Your task to perform on an android device: turn off data saver in the chrome app Image 0: 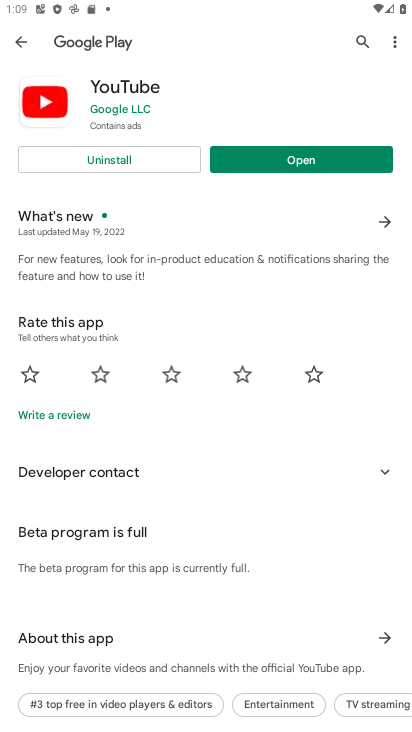
Step 0: press home button
Your task to perform on an android device: turn off data saver in the chrome app Image 1: 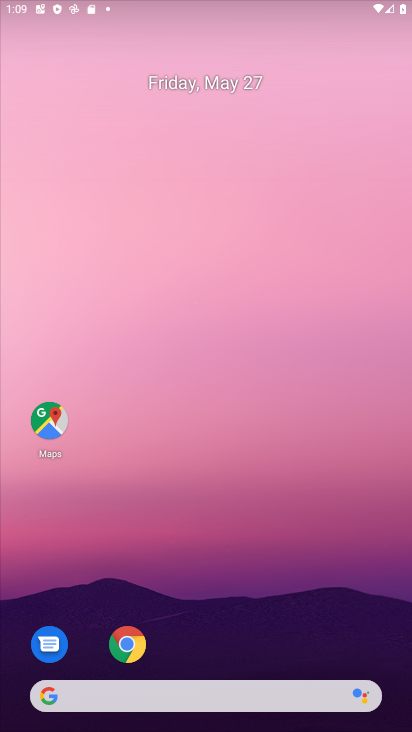
Step 1: drag from (324, 545) to (319, 375)
Your task to perform on an android device: turn off data saver in the chrome app Image 2: 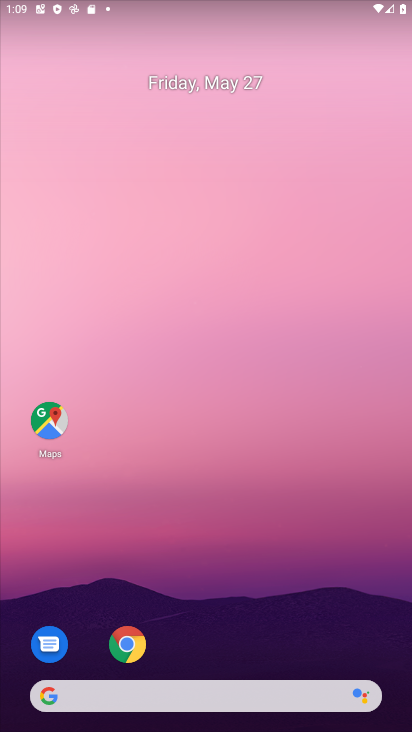
Step 2: drag from (357, 494) to (275, 21)
Your task to perform on an android device: turn off data saver in the chrome app Image 3: 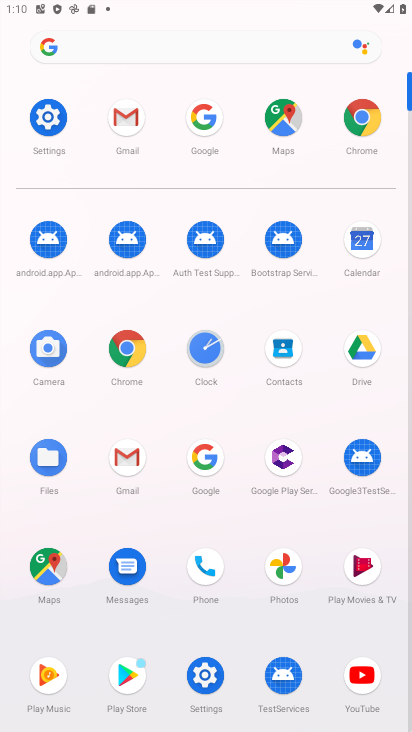
Step 3: click (375, 109)
Your task to perform on an android device: turn off data saver in the chrome app Image 4: 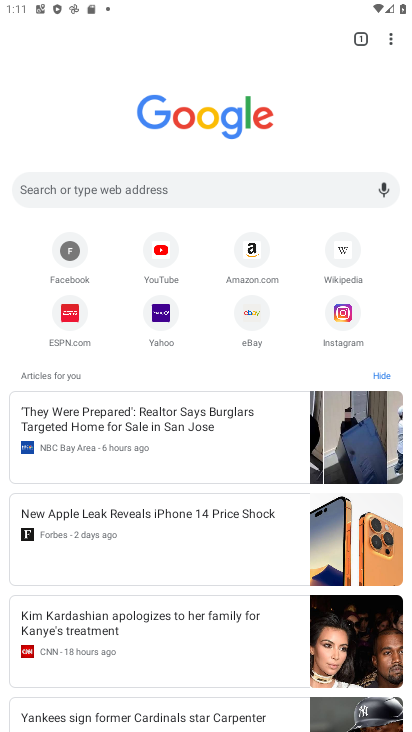
Step 4: click (389, 34)
Your task to perform on an android device: turn off data saver in the chrome app Image 5: 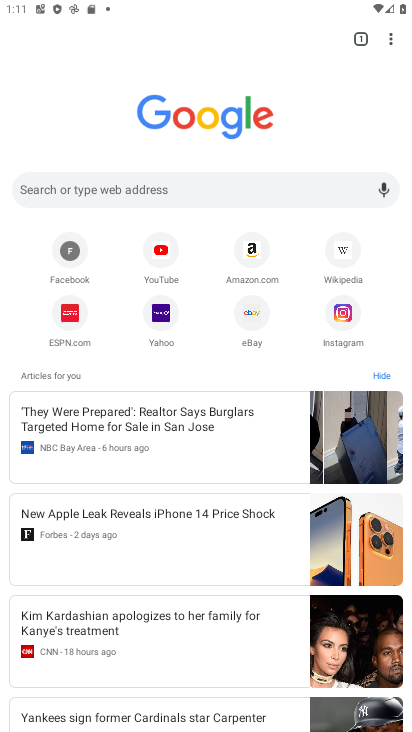
Step 5: click (394, 30)
Your task to perform on an android device: turn off data saver in the chrome app Image 6: 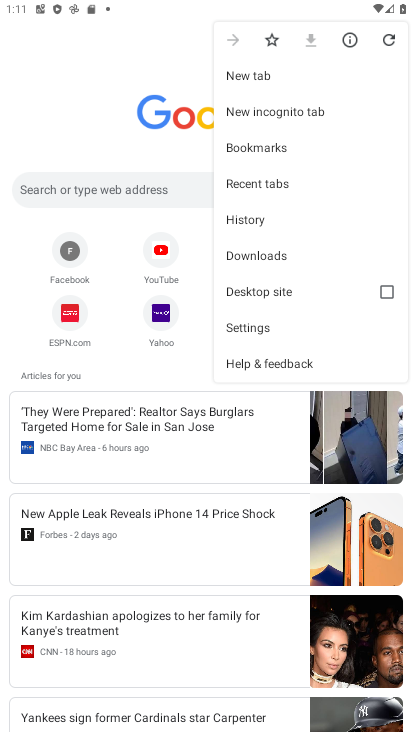
Step 6: click (256, 324)
Your task to perform on an android device: turn off data saver in the chrome app Image 7: 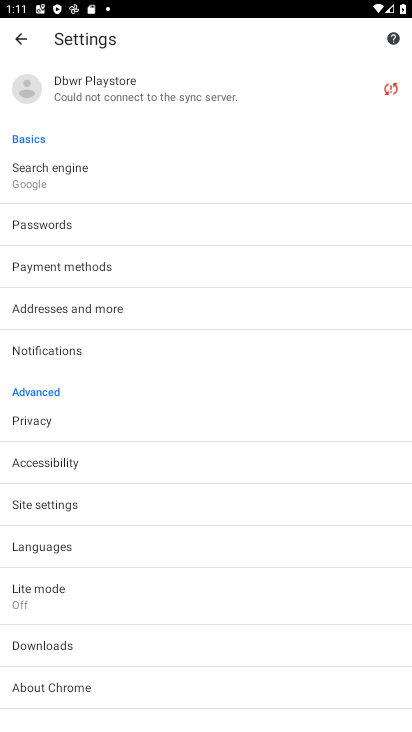
Step 7: click (96, 606)
Your task to perform on an android device: turn off data saver in the chrome app Image 8: 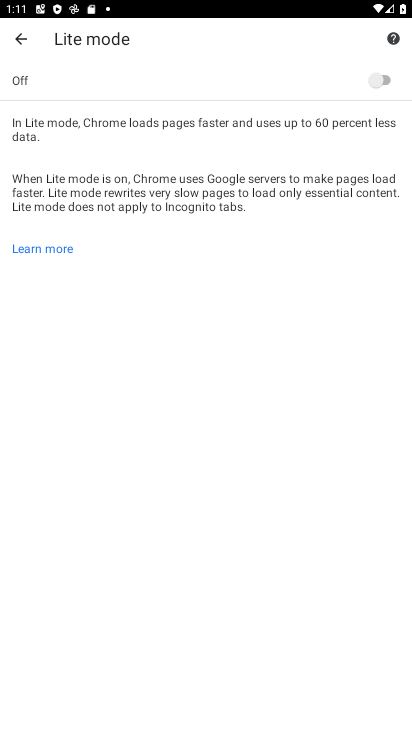
Step 8: task complete